Your task to perform on an android device: Search for Mexican restaurants on Maps Image 0: 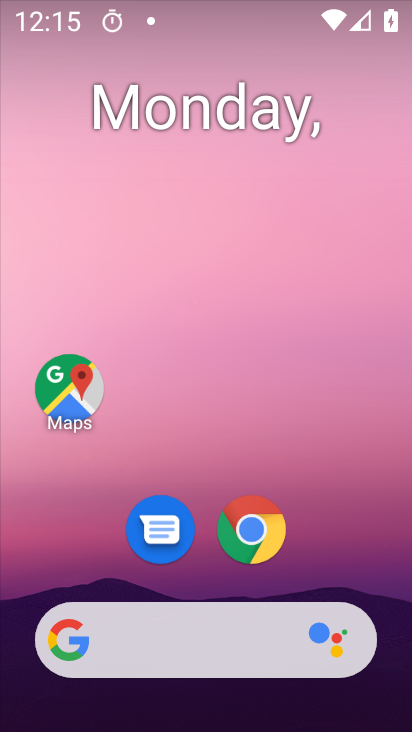
Step 0: click (75, 388)
Your task to perform on an android device: Search for Mexican restaurants on Maps Image 1: 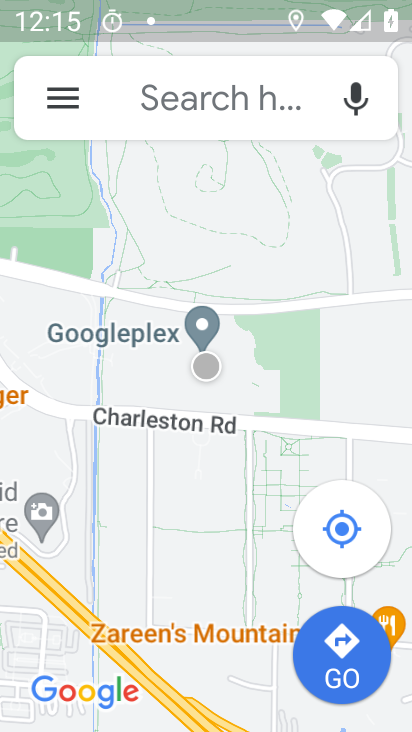
Step 1: click (162, 117)
Your task to perform on an android device: Search for Mexican restaurants on Maps Image 2: 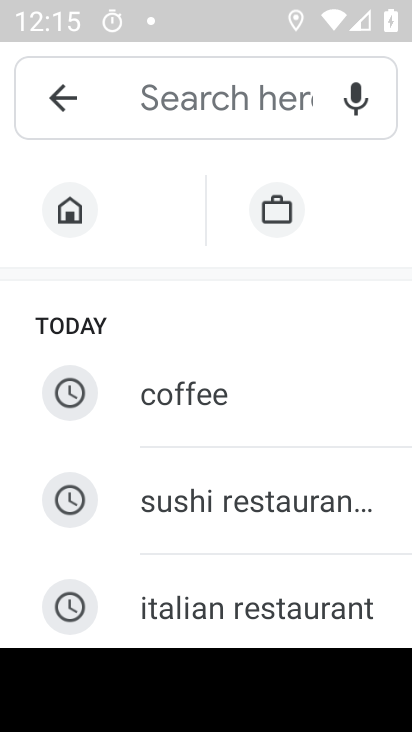
Step 2: type "mexican restaurants"
Your task to perform on an android device: Search for Mexican restaurants on Maps Image 3: 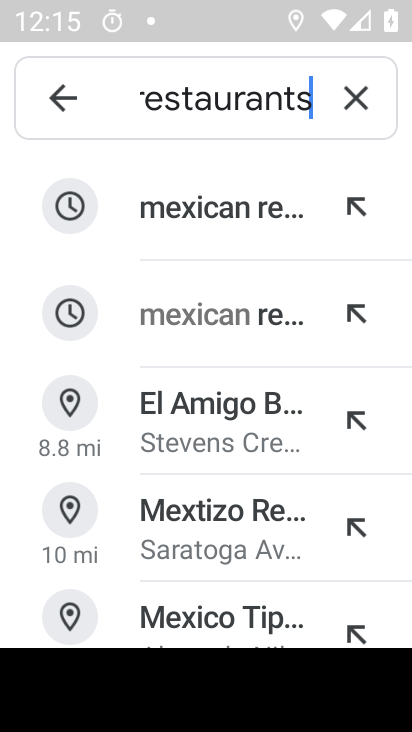
Step 3: click (215, 214)
Your task to perform on an android device: Search for Mexican restaurants on Maps Image 4: 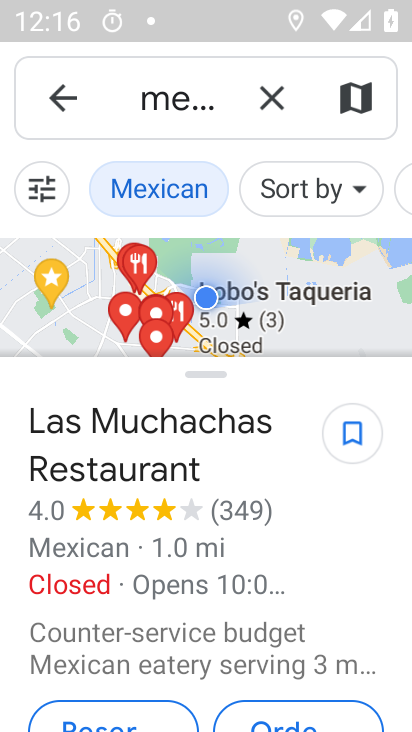
Step 4: task complete